Your task to perform on an android device: Go to settings Image 0: 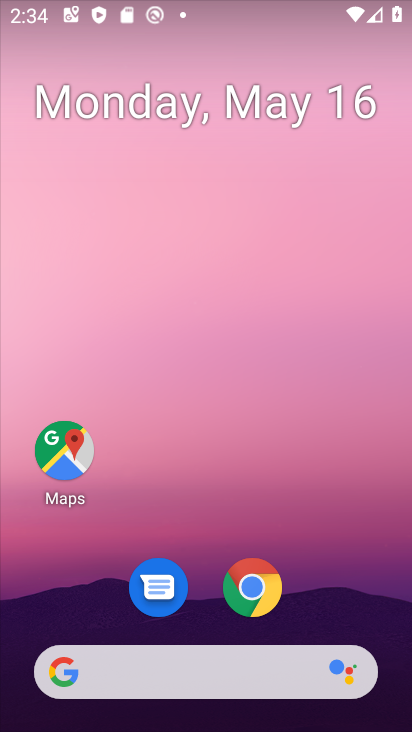
Step 0: drag from (357, 657) to (190, 110)
Your task to perform on an android device: Go to settings Image 1: 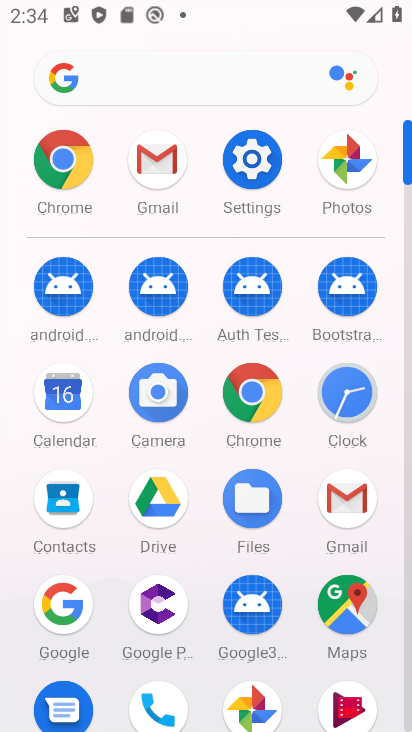
Step 1: click (260, 156)
Your task to perform on an android device: Go to settings Image 2: 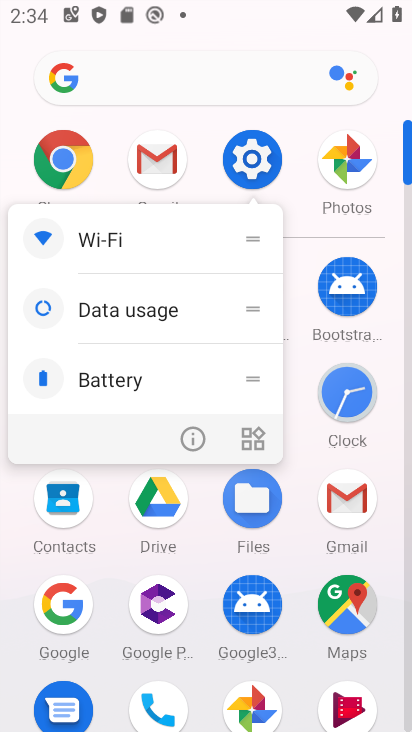
Step 2: click (261, 157)
Your task to perform on an android device: Go to settings Image 3: 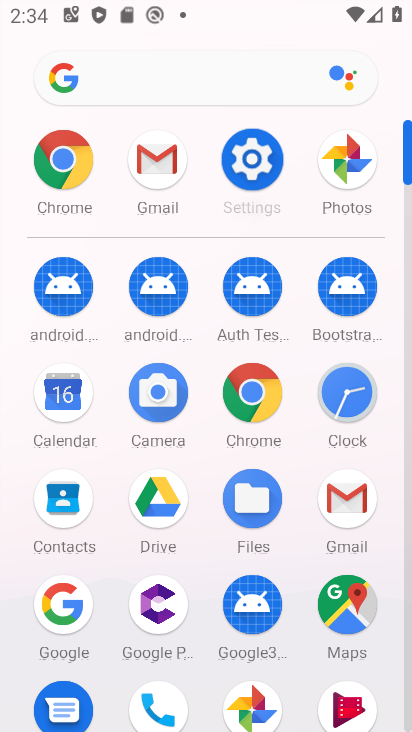
Step 3: click (261, 157)
Your task to perform on an android device: Go to settings Image 4: 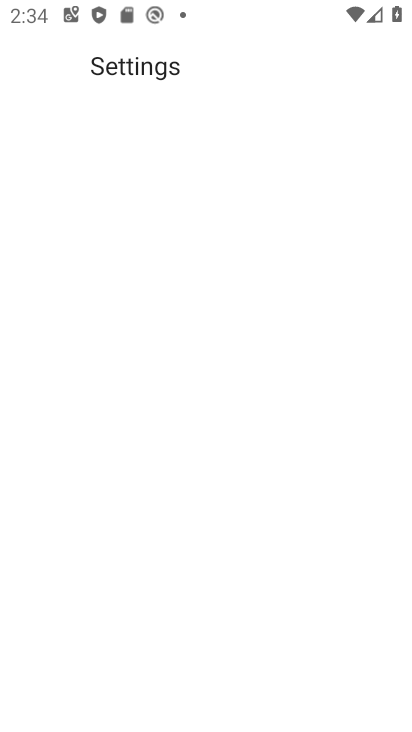
Step 4: click (261, 157)
Your task to perform on an android device: Go to settings Image 5: 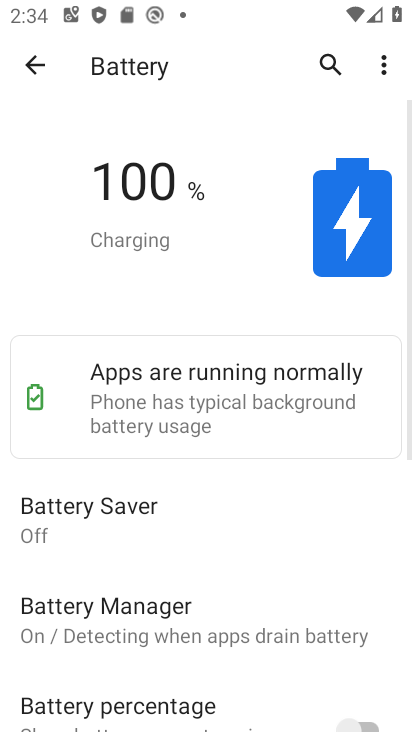
Step 5: task complete